Your task to perform on an android device: When is my next appointment? Image 0: 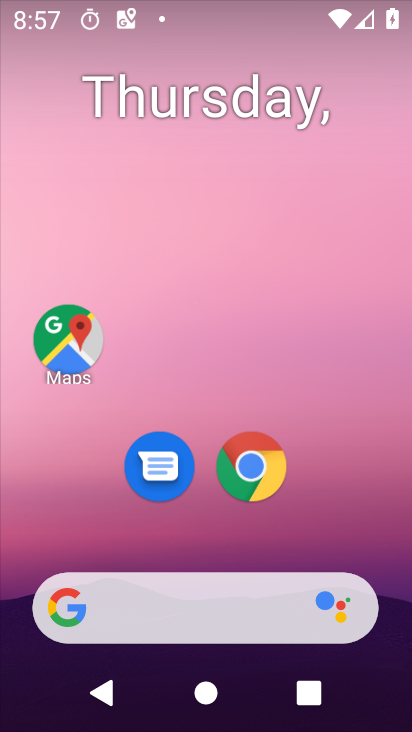
Step 0: drag from (365, 546) to (365, 218)
Your task to perform on an android device: When is my next appointment? Image 1: 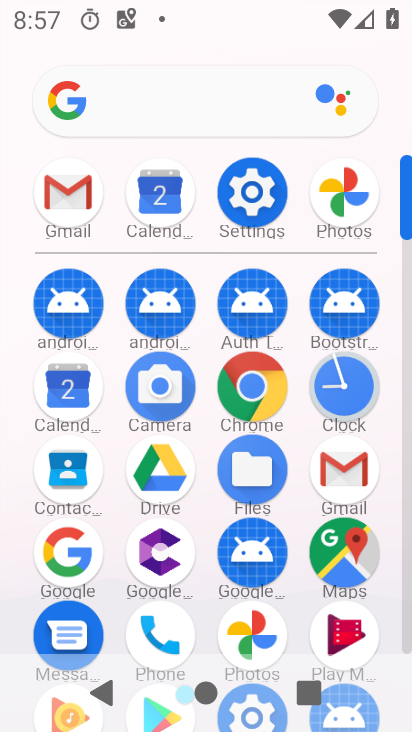
Step 1: click (150, 197)
Your task to perform on an android device: When is my next appointment? Image 2: 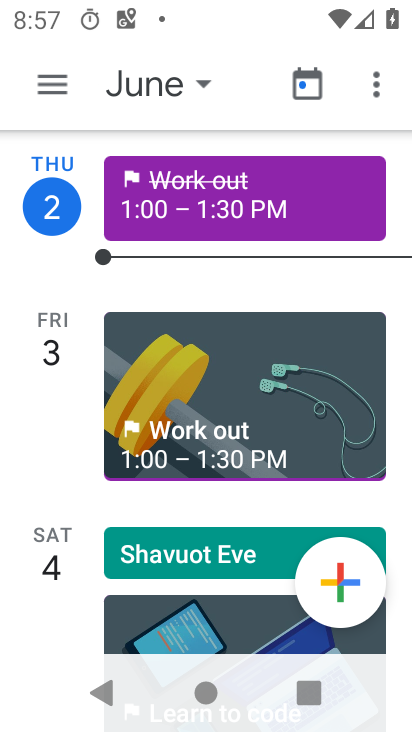
Step 2: click (65, 81)
Your task to perform on an android device: When is my next appointment? Image 3: 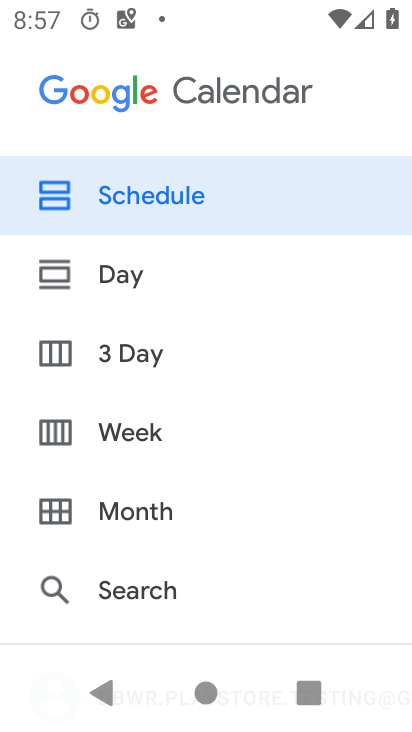
Step 3: drag from (322, 590) to (319, 136)
Your task to perform on an android device: When is my next appointment? Image 4: 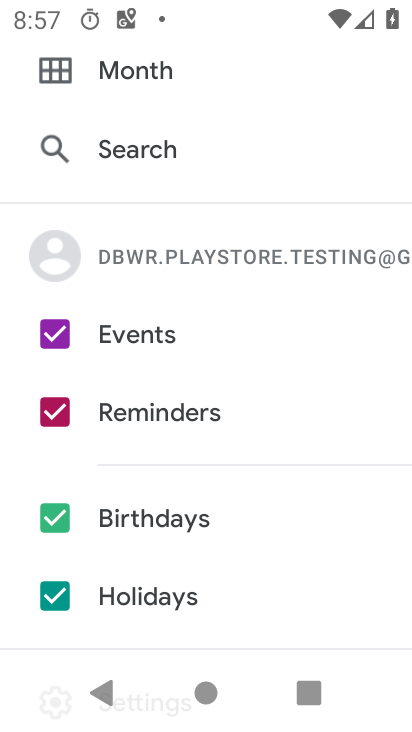
Step 4: drag from (325, 120) to (312, 578)
Your task to perform on an android device: When is my next appointment? Image 5: 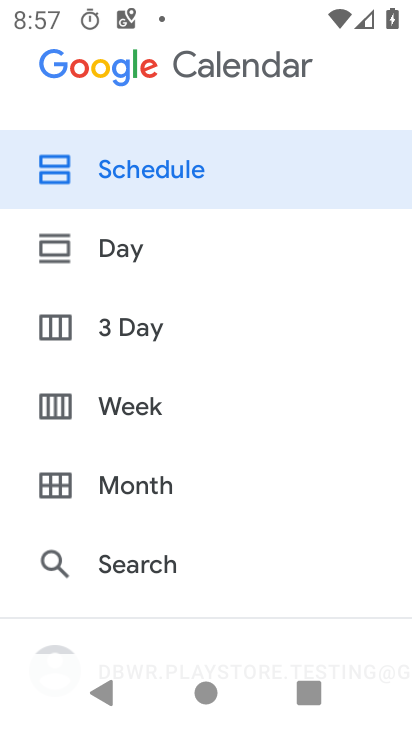
Step 5: click (229, 187)
Your task to perform on an android device: When is my next appointment? Image 6: 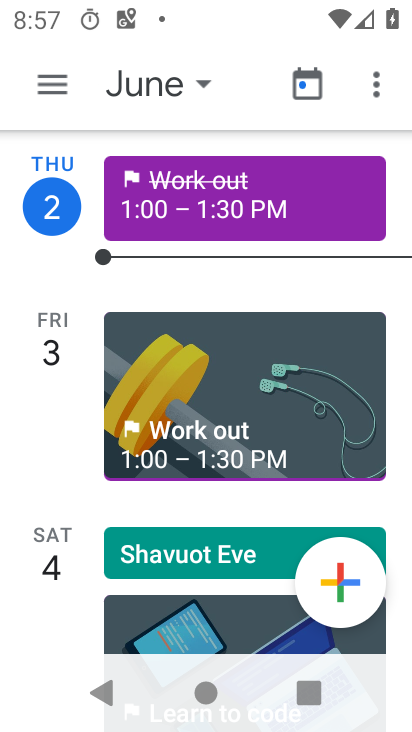
Step 6: task complete